Your task to perform on an android device: Open privacy settings Image 0: 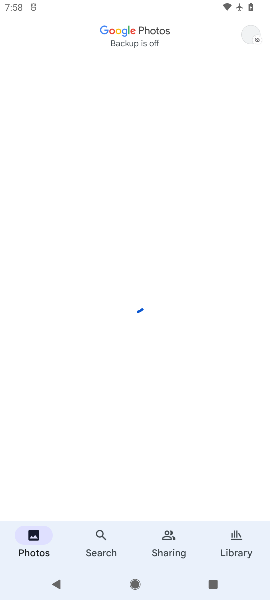
Step 0: press home button
Your task to perform on an android device: Open privacy settings Image 1: 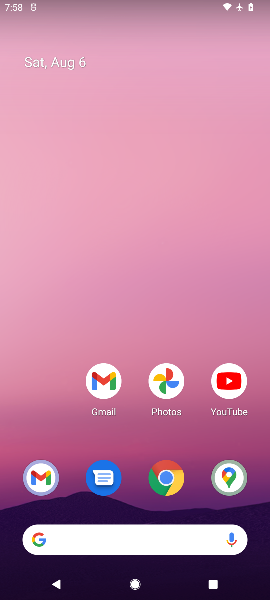
Step 1: drag from (61, 413) to (75, 0)
Your task to perform on an android device: Open privacy settings Image 2: 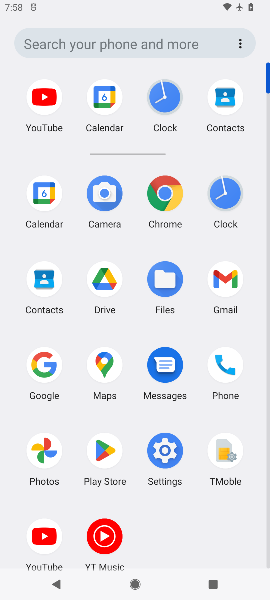
Step 2: click (168, 449)
Your task to perform on an android device: Open privacy settings Image 3: 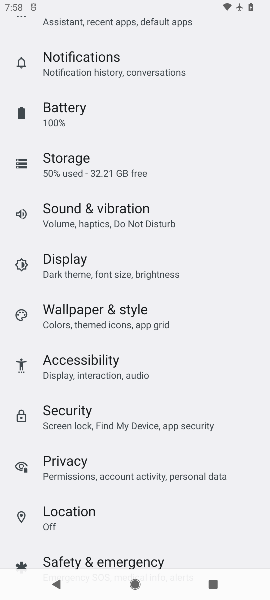
Step 3: click (69, 465)
Your task to perform on an android device: Open privacy settings Image 4: 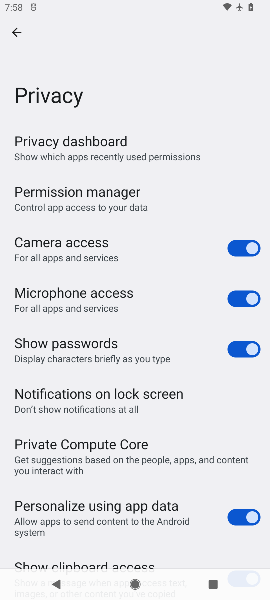
Step 4: task complete